Your task to perform on an android device: Open the phone app and click the voicemail tab. Image 0: 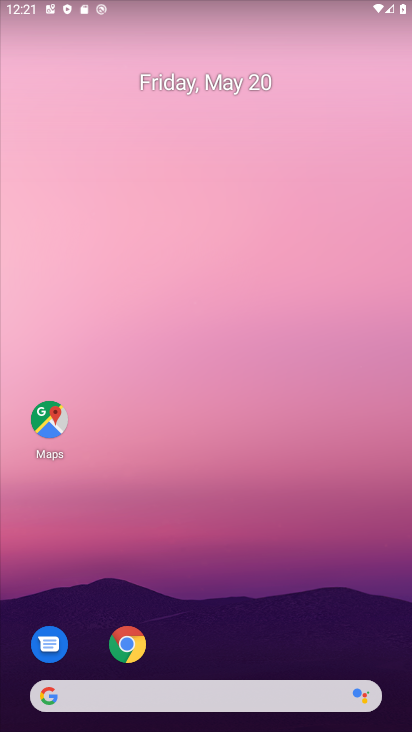
Step 0: drag from (292, 622) to (195, 10)
Your task to perform on an android device: Open the phone app and click the voicemail tab. Image 1: 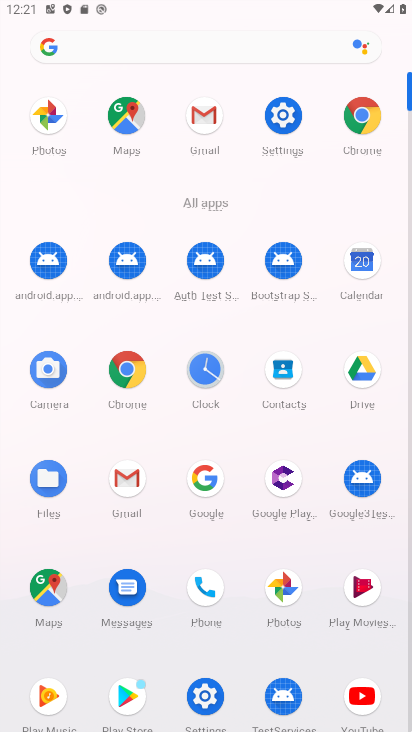
Step 1: click (206, 598)
Your task to perform on an android device: Open the phone app and click the voicemail tab. Image 2: 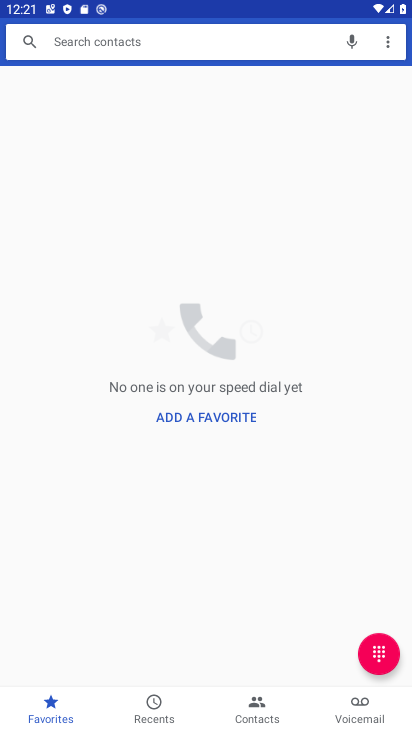
Step 2: click (354, 705)
Your task to perform on an android device: Open the phone app and click the voicemail tab. Image 3: 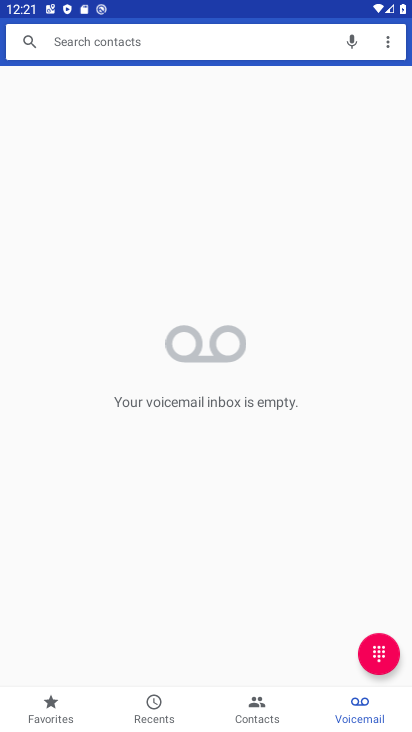
Step 3: click (357, 710)
Your task to perform on an android device: Open the phone app and click the voicemail tab. Image 4: 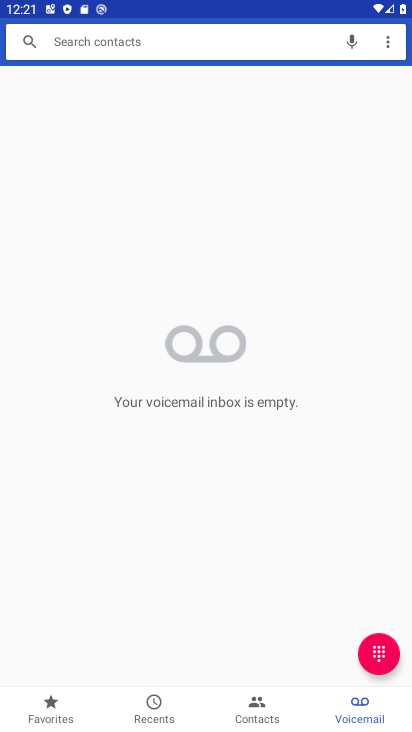
Step 4: task complete